Your task to perform on an android device: turn on wifi Image 0: 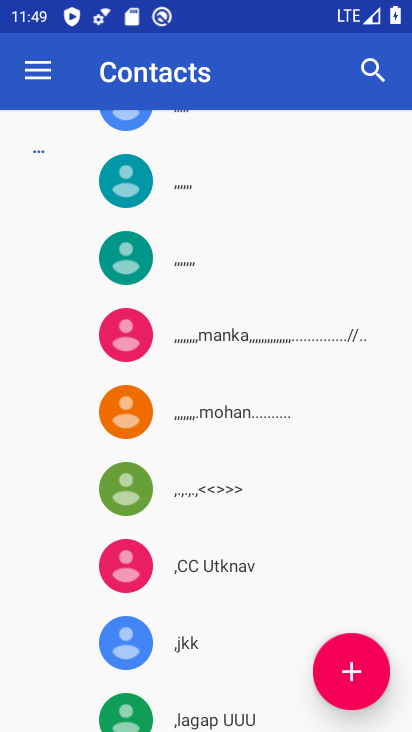
Step 0: click (279, 335)
Your task to perform on an android device: turn on wifi Image 1: 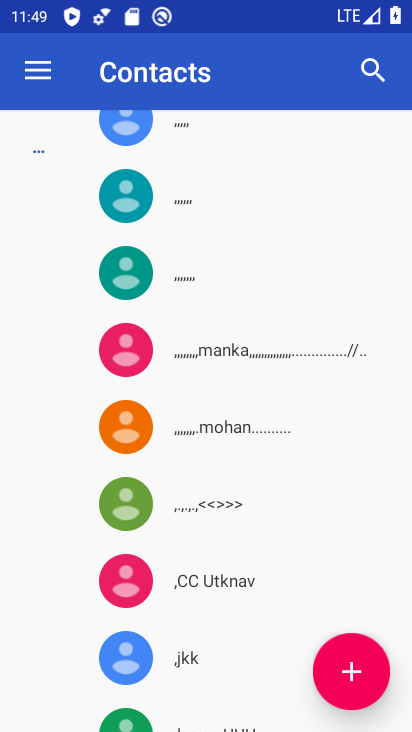
Step 1: drag from (289, 376) to (385, 43)
Your task to perform on an android device: turn on wifi Image 2: 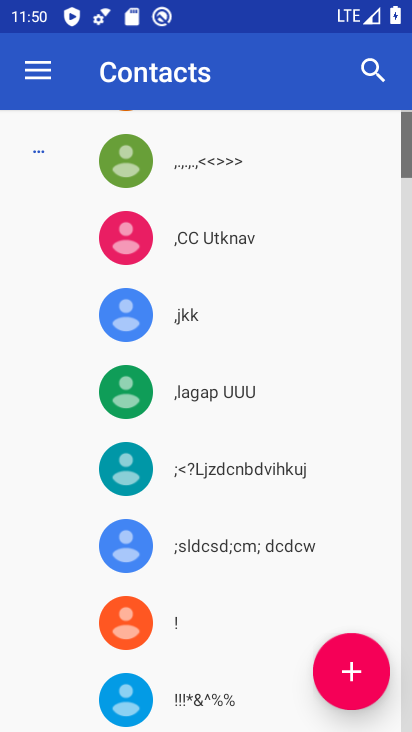
Step 2: drag from (121, 552) to (299, 239)
Your task to perform on an android device: turn on wifi Image 3: 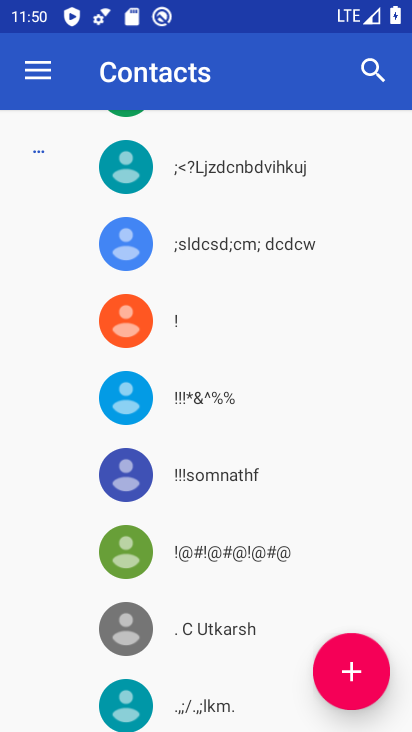
Step 3: drag from (183, 511) to (238, 283)
Your task to perform on an android device: turn on wifi Image 4: 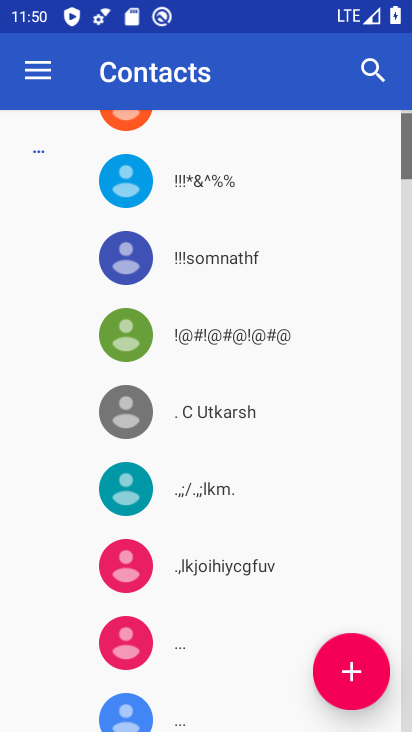
Step 4: press home button
Your task to perform on an android device: turn on wifi Image 5: 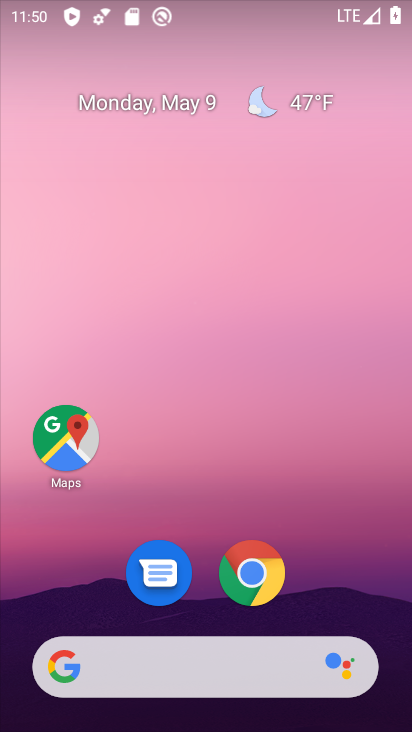
Step 5: drag from (208, 583) to (208, 50)
Your task to perform on an android device: turn on wifi Image 6: 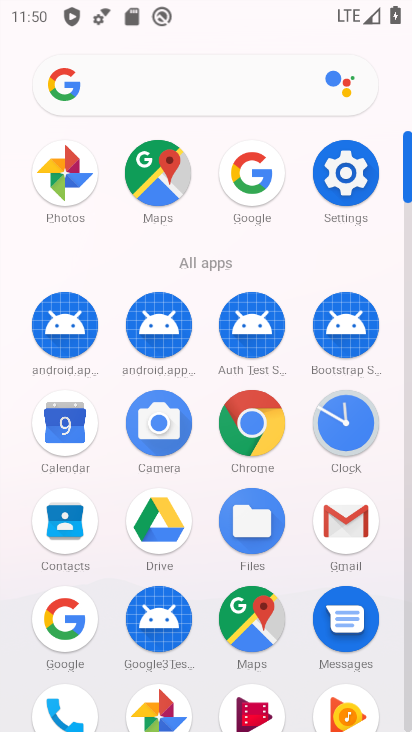
Step 6: drag from (202, 678) to (202, 274)
Your task to perform on an android device: turn on wifi Image 7: 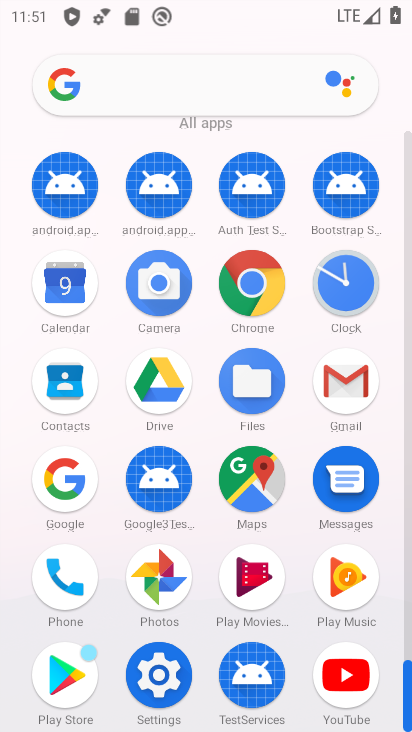
Step 7: click (159, 679)
Your task to perform on an android device: turn on wifi Image 8: 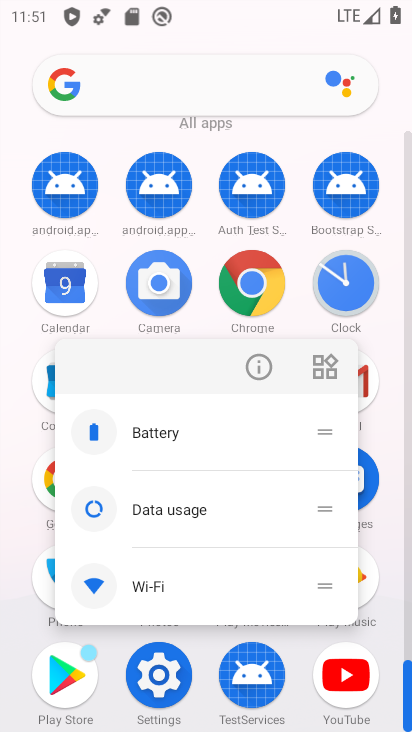
Step 8: click (254, 345)
Your task to perform on an android device: turn on wifi Image 9: 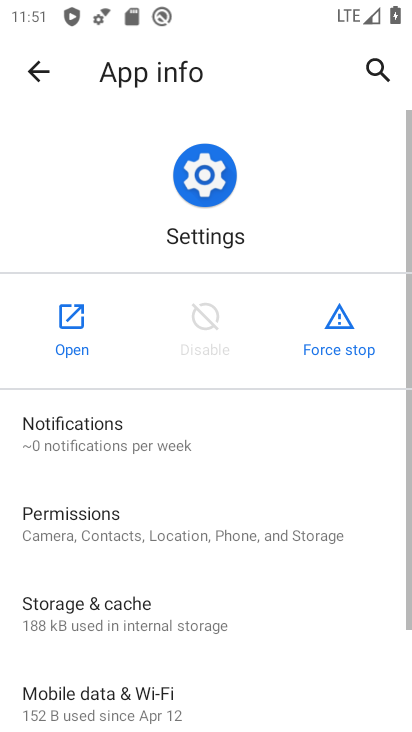
Step 9: click (66, 329)
Your task to perform on an android device: turn on wifi Image 10: 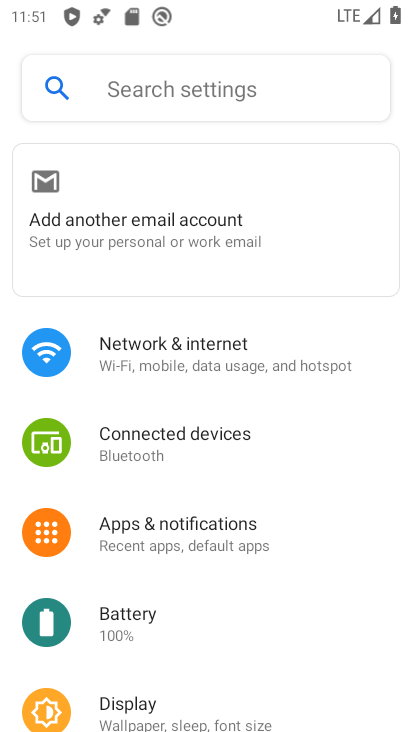
Step 10: click (160, 360)
Your task to perform on an android device: turn on wifi Image 11: 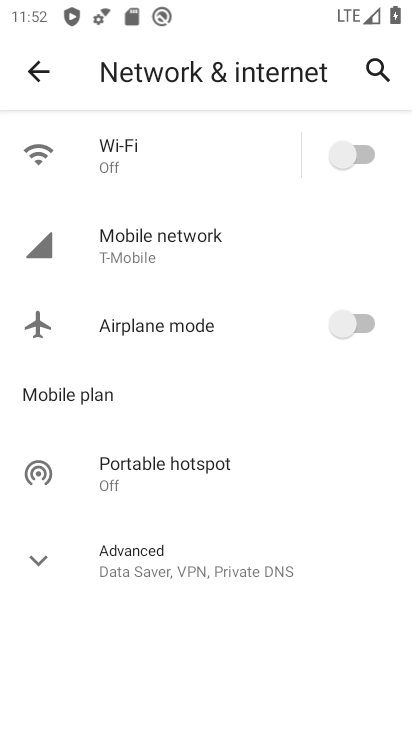
Step 11: click (353, 162)
Your task to perform on an android device: turn on wifi Image 12: 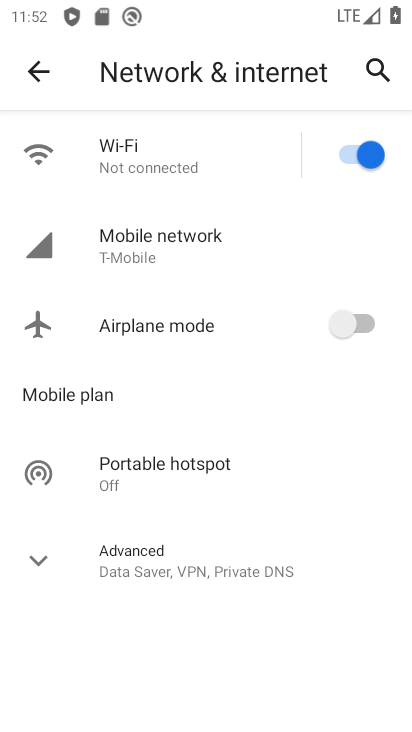
Step 12: task complete